Your task to perform on an android device: open app "Expedia: Hotels, Flights & Car" Image 0: 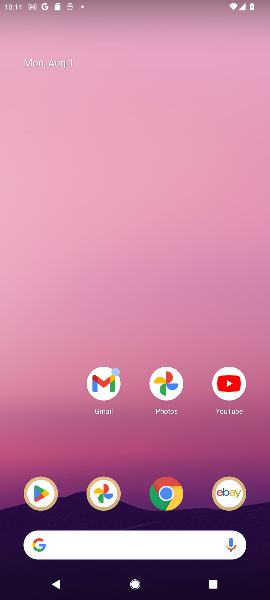
Step 0: click (28, 503)
Your task to perform on an android device: open app "Expedia: Hotels, Flights & Car" Image 1: 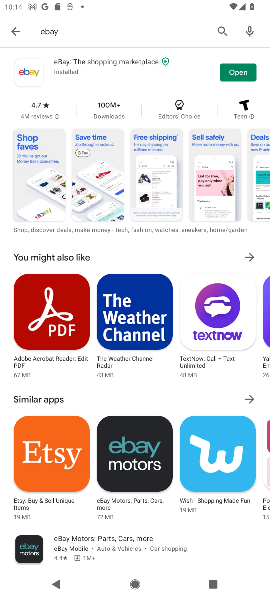
Step 1: click (228, 34)
Your task to perform on an android device: open app "Expedia: Hotels, Flights & Car" Image 2: 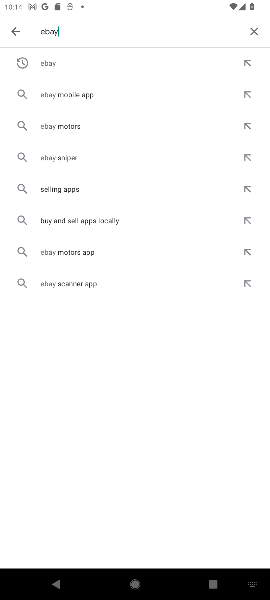
Step 2: click (258, 37)
Your task to perform on an android device: open app "Expedia: Hotels, Flights & Car" Image 3: 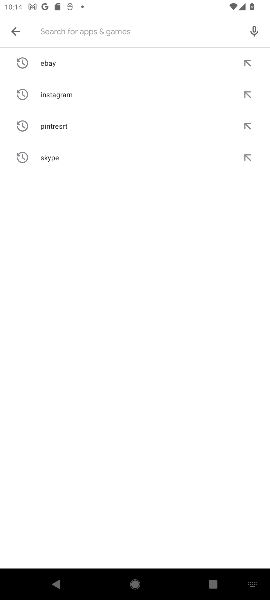
Step 3: type "expedia"
Your task to perform on an android device: open app "Expedia: Hotels, Flights & Car" Image 4: 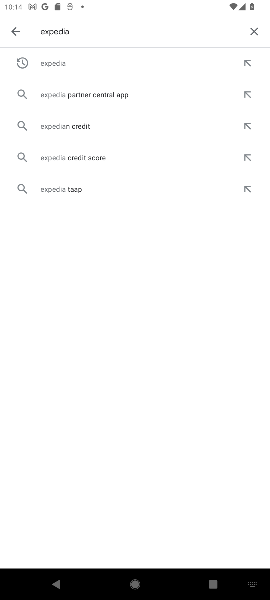
Step 4: click (90, 69)
Your task to perform on an android device: open app "Expedia: Hotels, Flights & Car" Image 5: 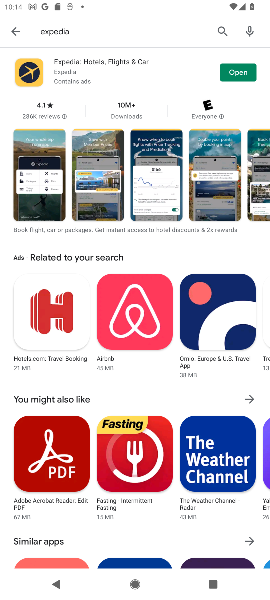
Step 5: task complete